Your task to perform on an android device: turn on location history Image 0: 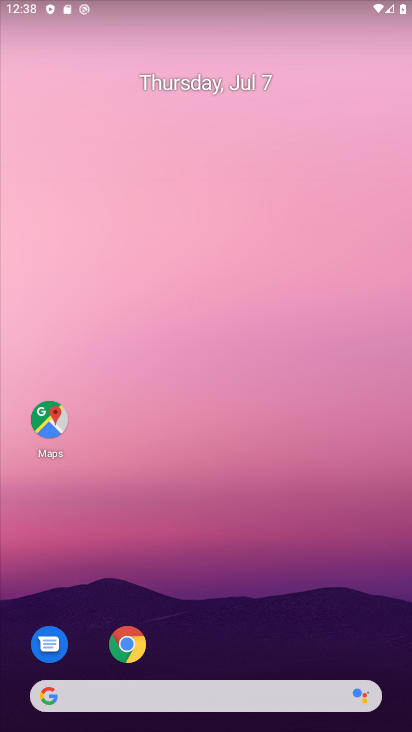
Step 0: drag from (253, 620) to (213, 135)
Your task to perform on an android device: turn on location history Image 1: 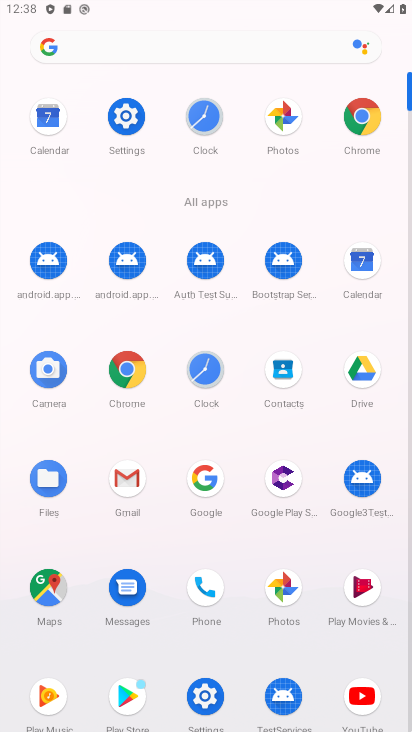
Step 1: click (55, 588)
Your task to perform on an android device: turn on location history Image 2: 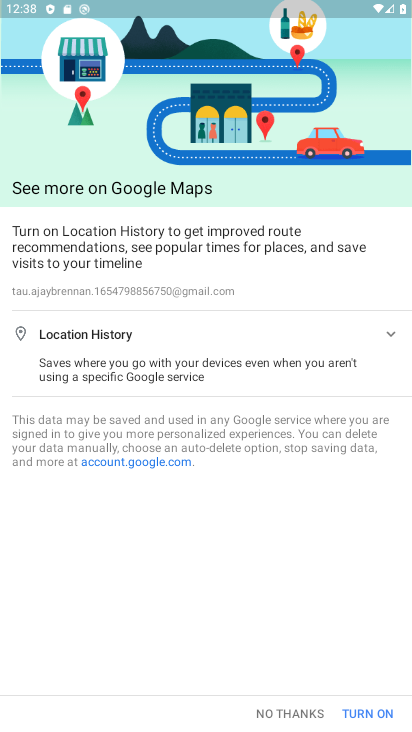
Step 2: click (370, 715)
Your task to perform on an android device: turn on location history Image 3: 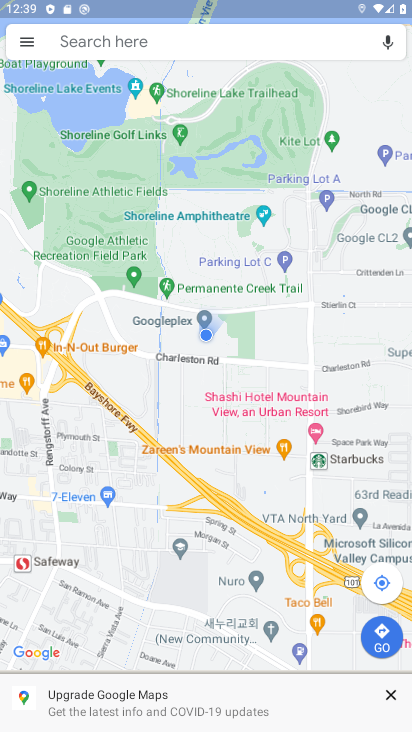
Step 3: task complete